Your task to perform on an android device: turn on the 24-hour format for clock Image 0: 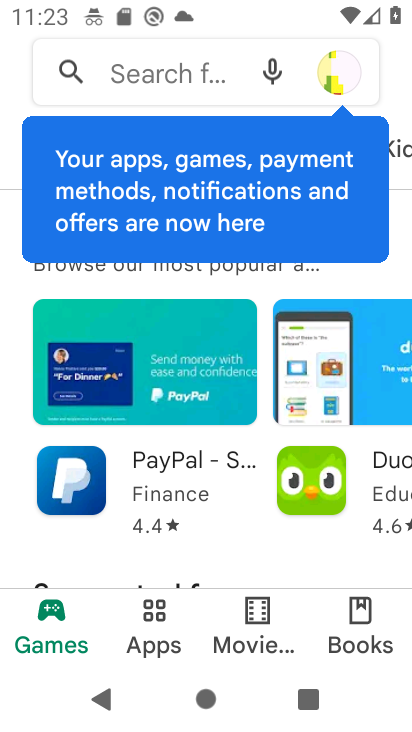
Step 0: press home button
Your task to perform on an android device: turn on the 24-hour format for clock Image 1: 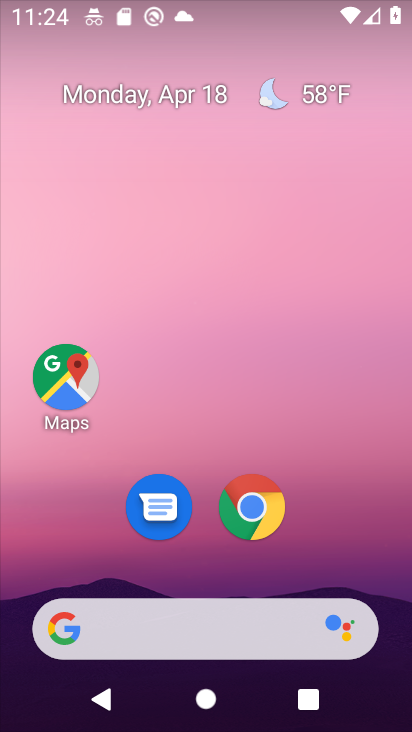
Step 1: drag from (219, 571) to (291, 34)
Your task to perform on an android device: turn on the 24-hour format for clock Image 2: 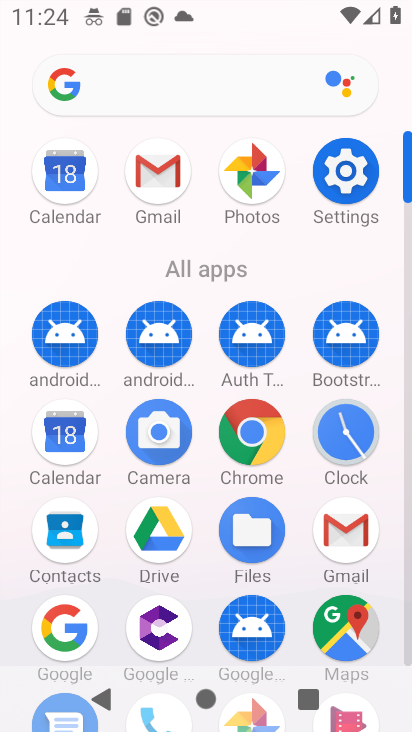
Step 2: click (354, 186)
Your task to perform on an android device: turn on the 24-hour format for clock Image 3: 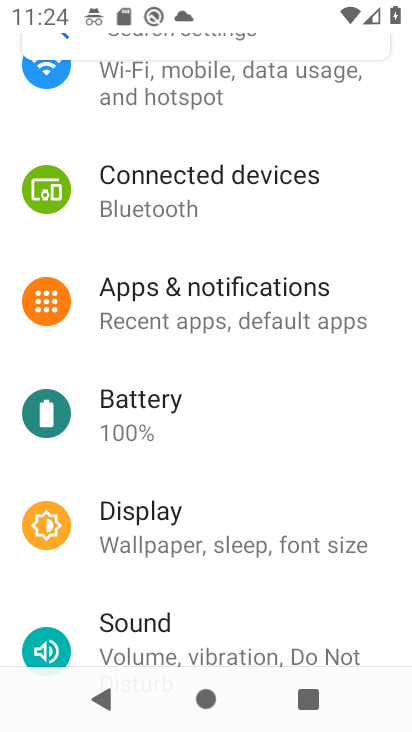
Step 3: drag from (207, 517) to (285, 83)
Your task to perform on an android device: turn on the 24-hour format for clock Image 4: 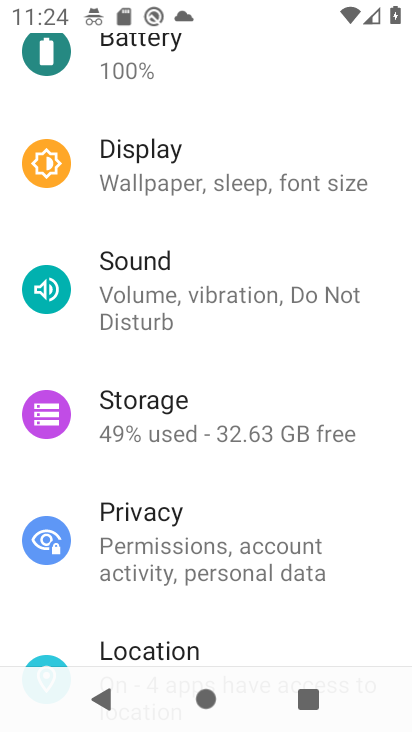
Step 4: drag from (160, 473) to (261, 106)
Your task to perform on an android device: turn on the 24-hour format for clock Image 5: 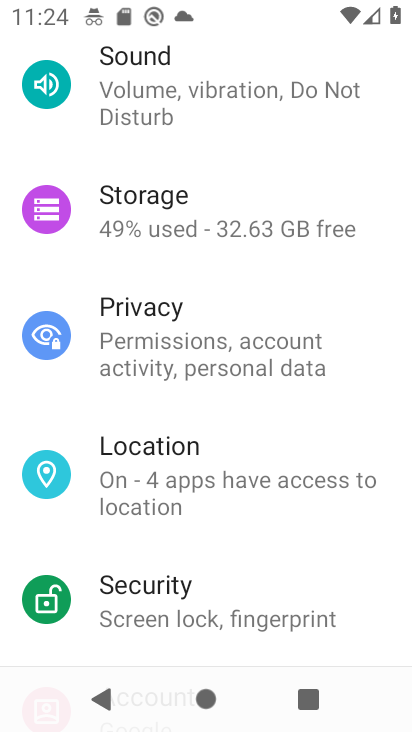
Step 5: drag from (174, 608) to (249, 221)
Your task to perform on an android device: turn on the 24-hour format for clock Image 6: 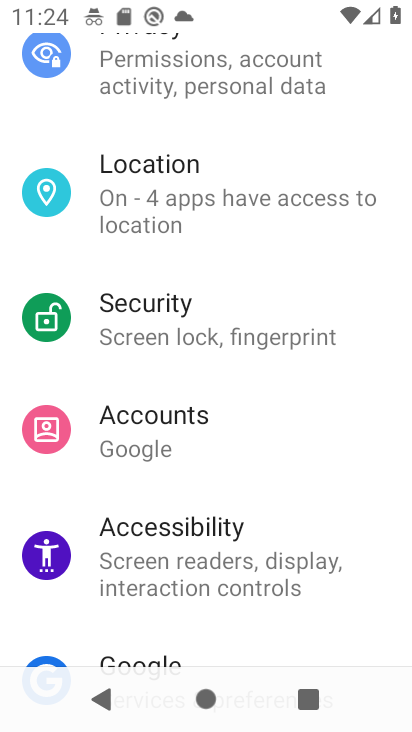
Step 6: drag from (156, 525) to (277, 126)
Your task to perform on an android device: turn on the 24-hour format for clock Image 7: 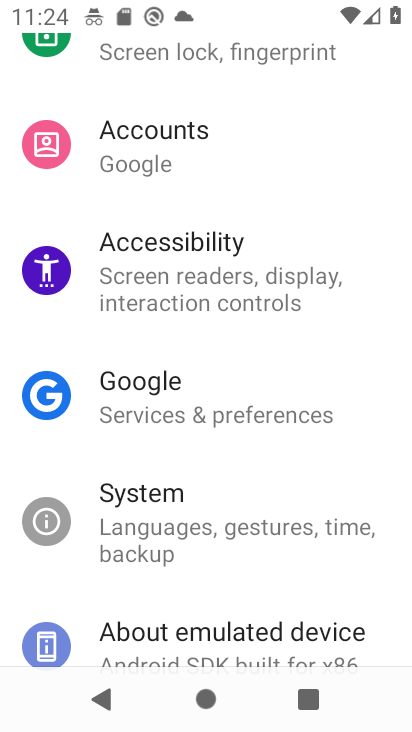
Step 7: click (190, 542)
Your task to perform on an android device: turn on the 24-hour format for clock Image 8: 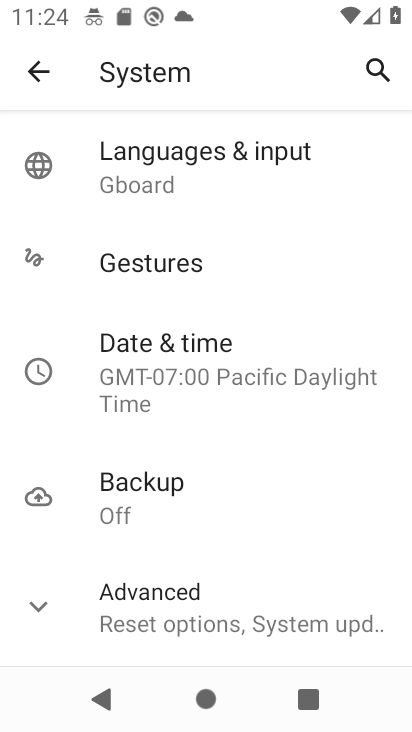
Step 8: click (190, 384)
Your task to perform on an android device: turn on the 24-hour format for clock Image 9: 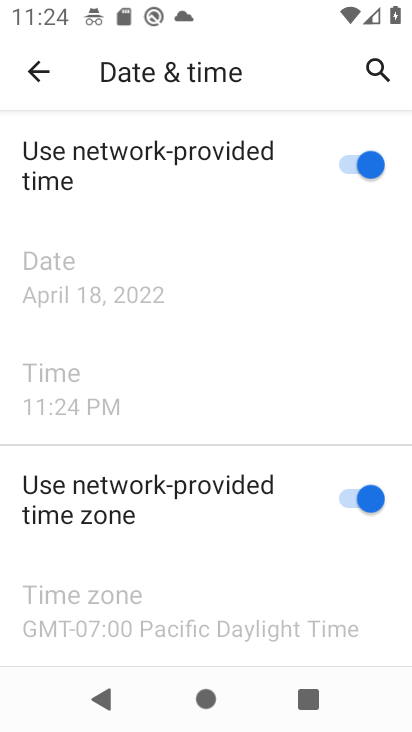
Step 9: drag from (201, 542) to (238, 168)
Your task to perform on an android device: turn on the 24-hour format for clock Image 10: 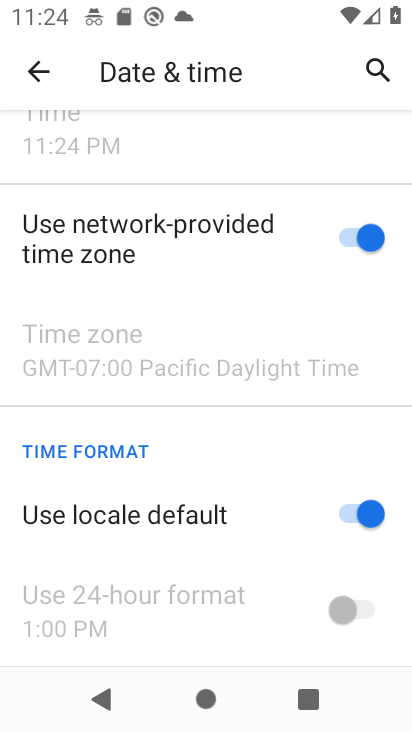
Step 10: drag from (224, 533) to (253, 168)
Your task to perform on an android device: turn on the 24-hour format for clock Image 11: 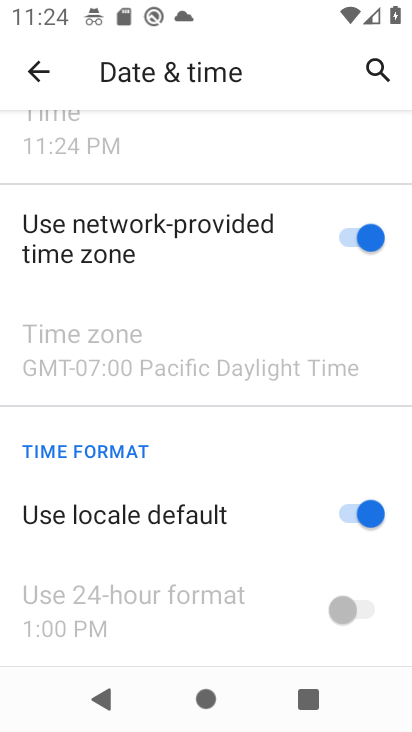
Step 11: drag from (237, 465) to (250, 355)
Your task to perform on an android device: turn on the 24-hour format for clock Image 12: 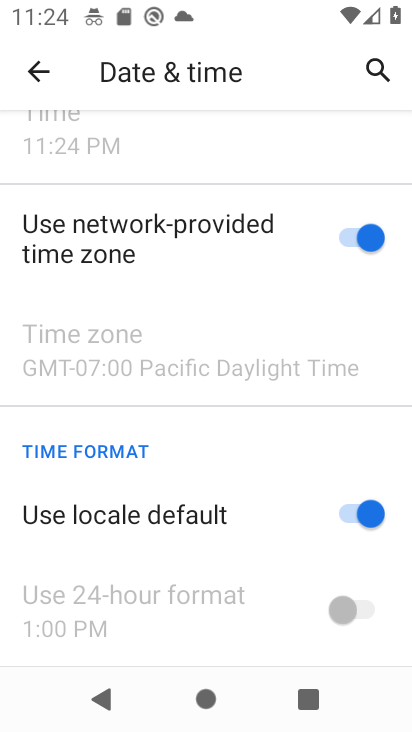
Step 12: click (351, 517)
Your task to perform on an android device: turn on the 24-hour format for clock Image 13: 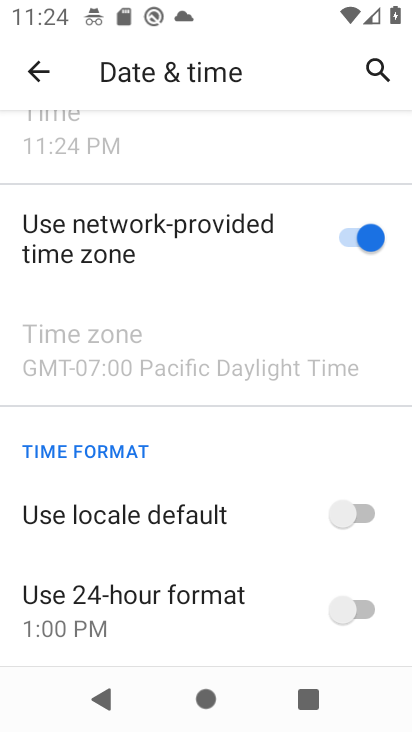
Step 13: click (360, 611)
Your task to perform on an android device: turn on the 24-hour format for clock Image 14: 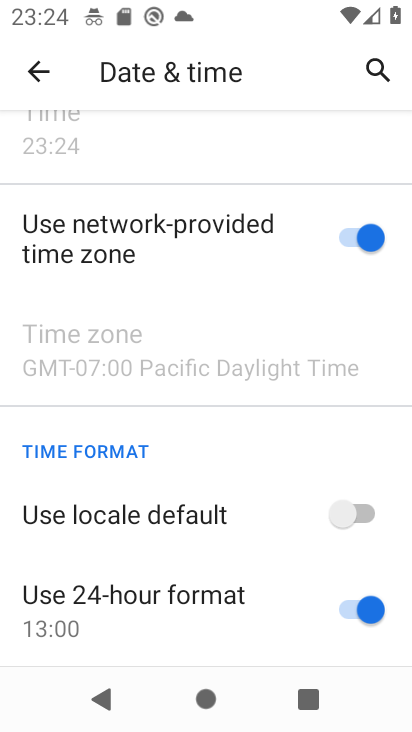
Step 14: click (372, 606)
Your task to perform on an android device: turn on the 24-hour format for clock Image 15: 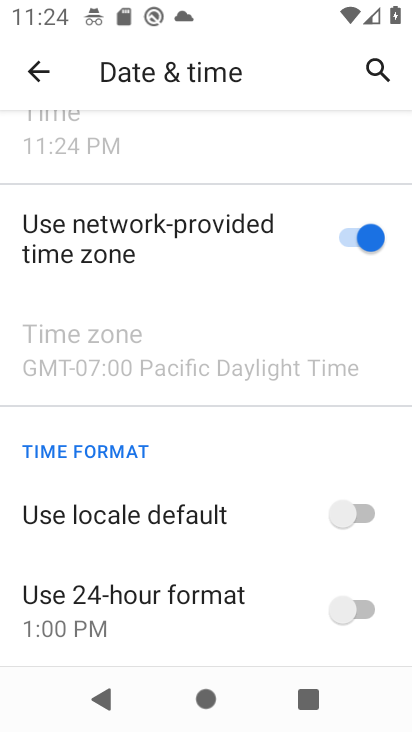
Step 15: click (357, 605)
Your task to perform on an android device: turn on the 24-hour format for clock Image 16: 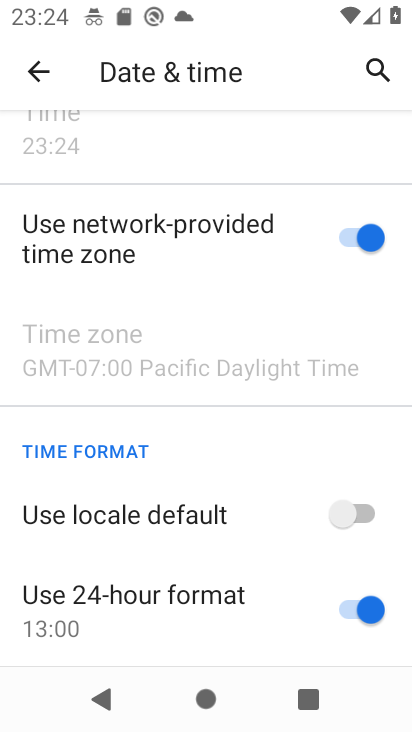
Step 16: task complete